Your task to perform on an android device: Show me popular games on the Play Store Image 0: 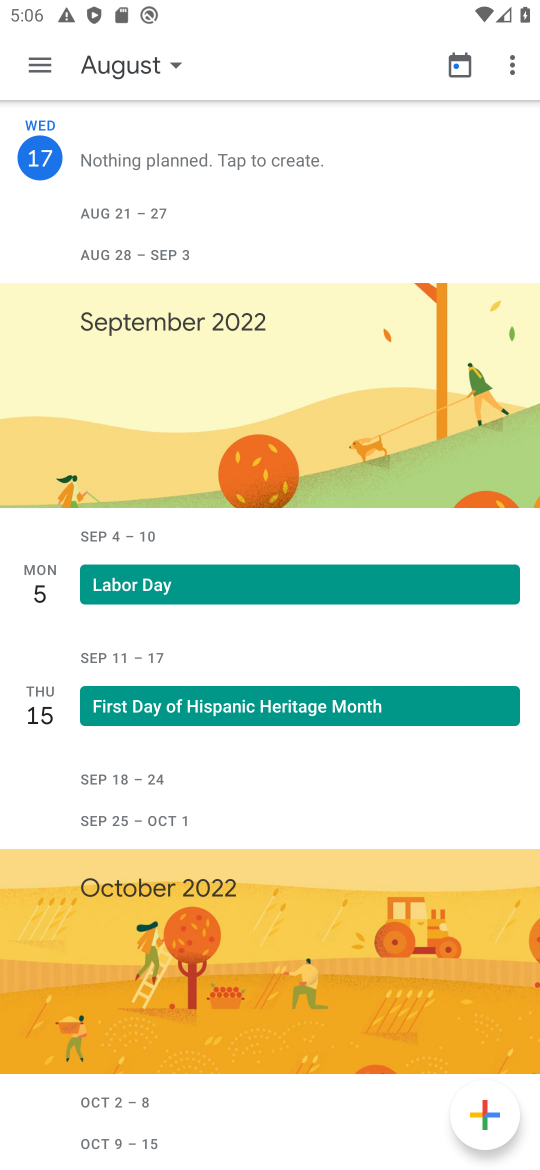
Step 0: press home button
Your task to perform on an android device: Show me popular games on the Play Store Image 1: 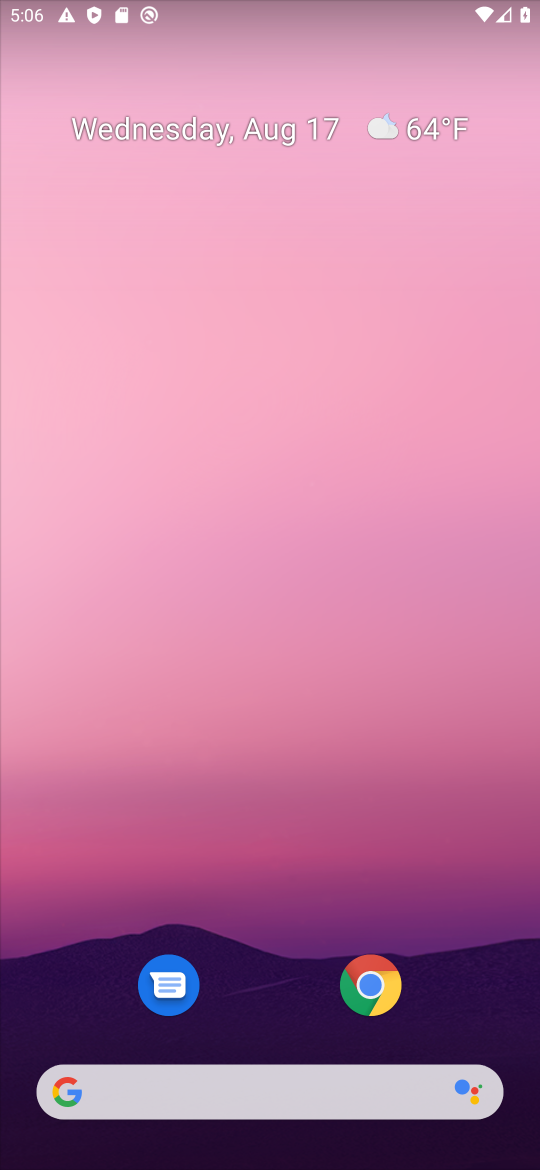
Step 1: drag from (207, 1083) to (371, 154)
Your task to perform on an android device: Show me popular games on the Play Store Image 2: 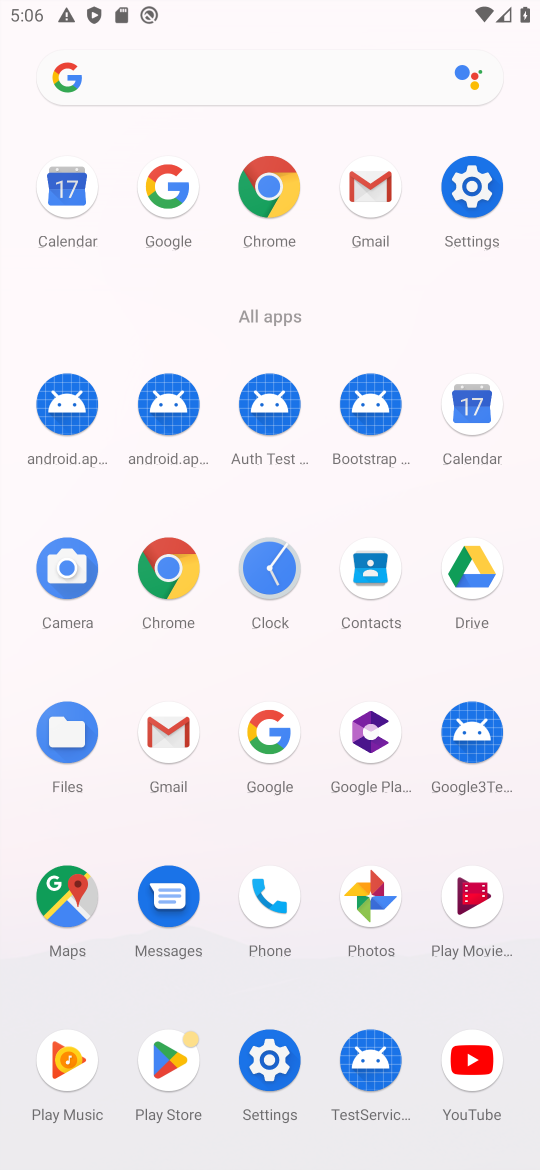
Step 2: click (168, 1062)
Your task to perform on an android device: Show me popular games on the Play Store Image 3: 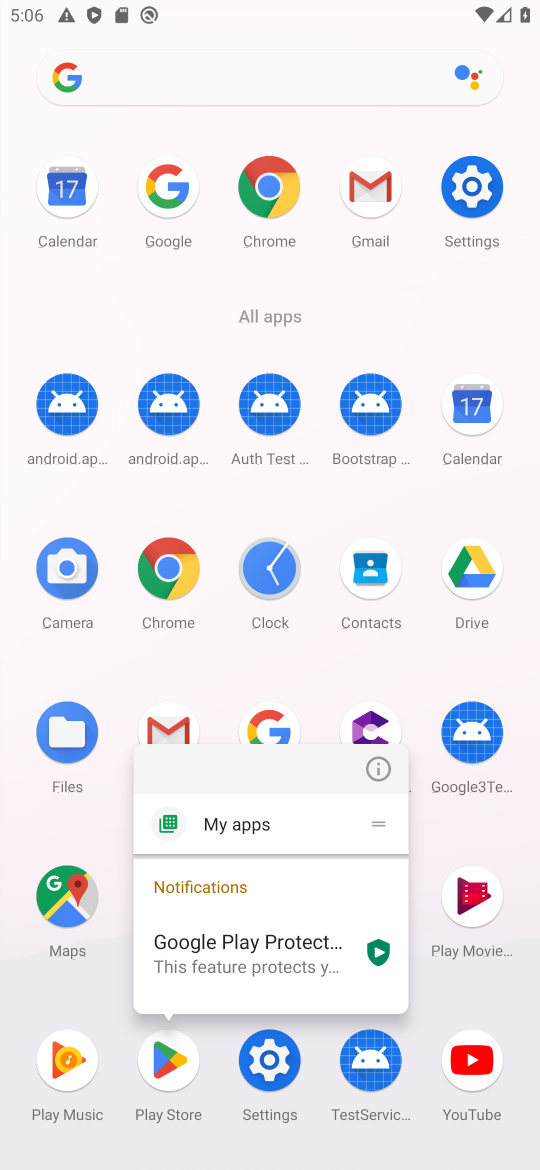
Step 3: click (168, 1062)
Your task to perform on an android device: Show me popular games on the Play Store Image 4: 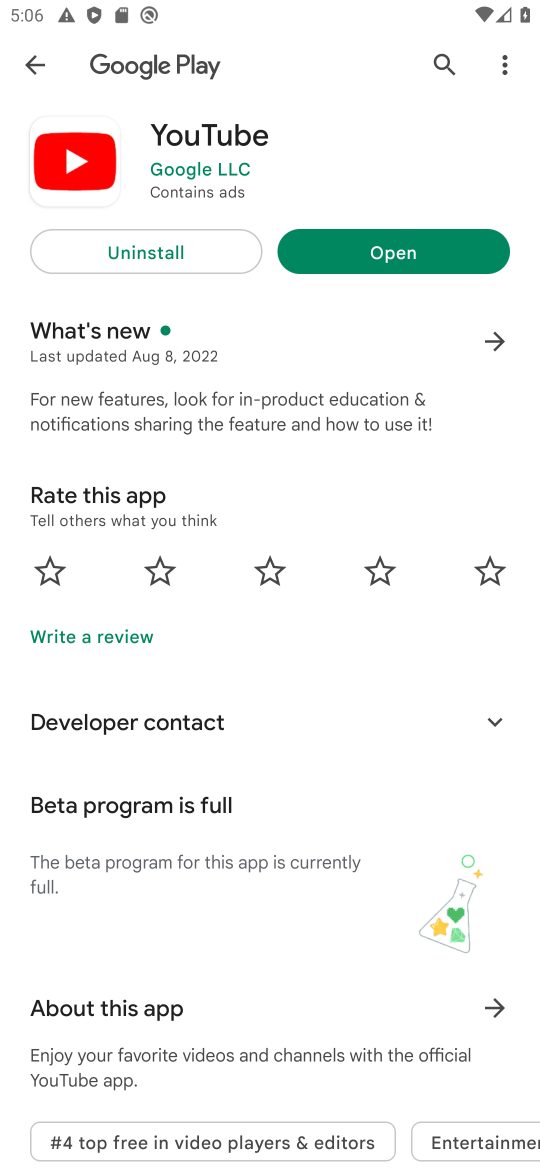
Step 4: press back button
Your task to perform on an android device: Show me popular games on the Play Store Image 5: 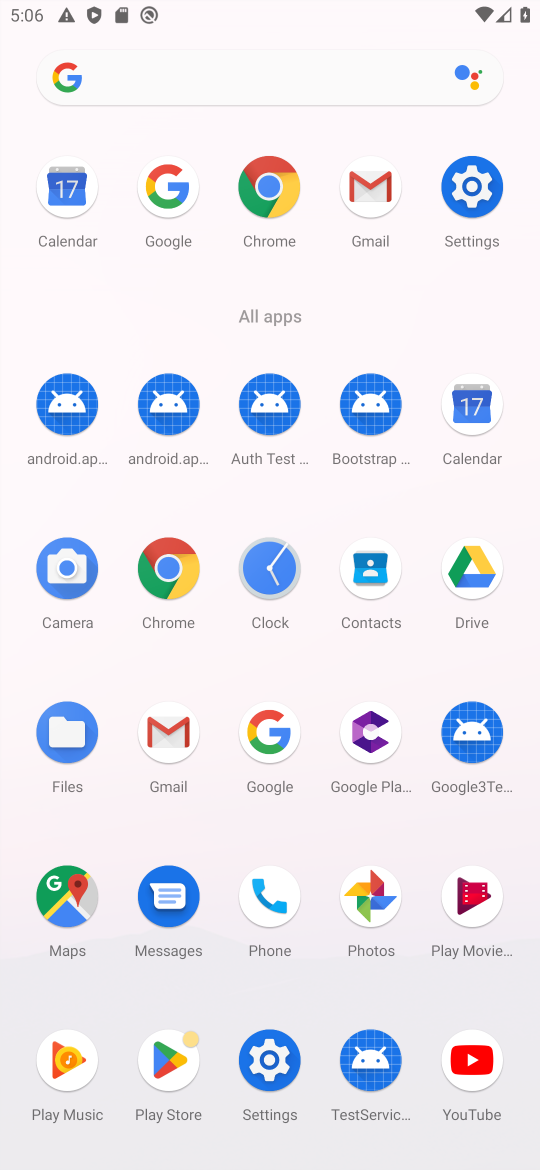
Step 5: click (168, 1060)
Your task to perform on an android device: Show me popular games on the Play Store Image 6: 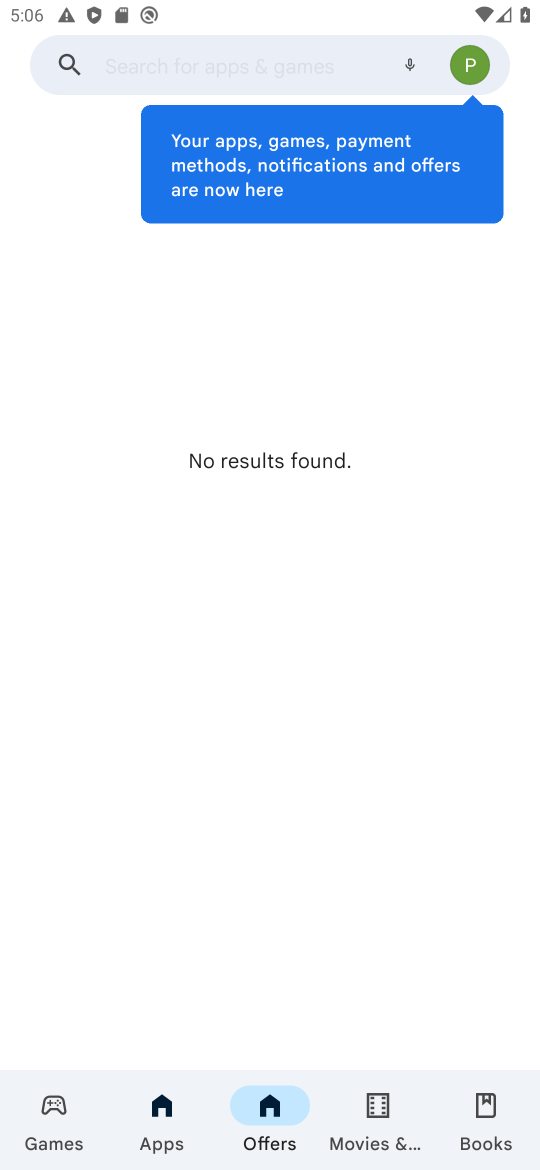
Step 6: click (307, 64)
Your task to perform on an android device: Show me popular games on the Play Store Image 7: 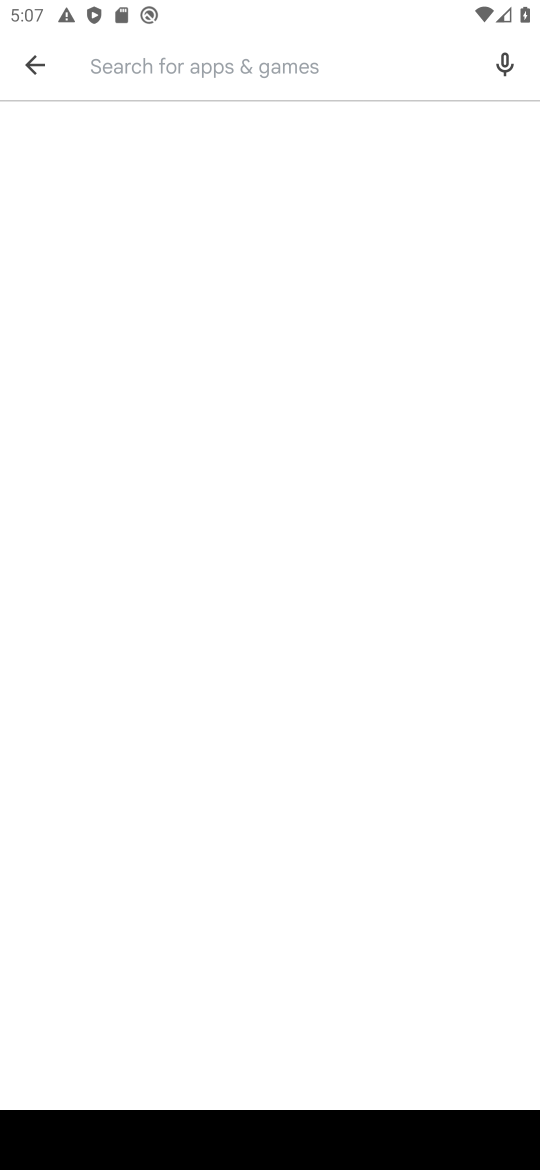
Step 7: type "popular games"
Your task to perform on an android device: Show me popular games on the Play Store Image 8: 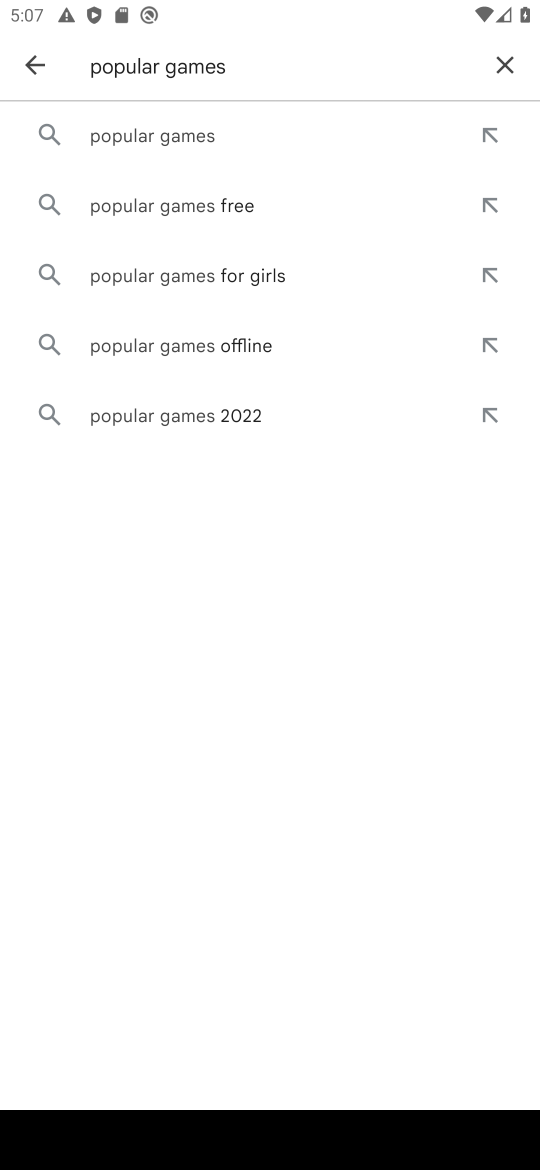
Step 8: click (190, 133)
Your task to perform on an android device: Show me popular games on the Play Store Image 9: 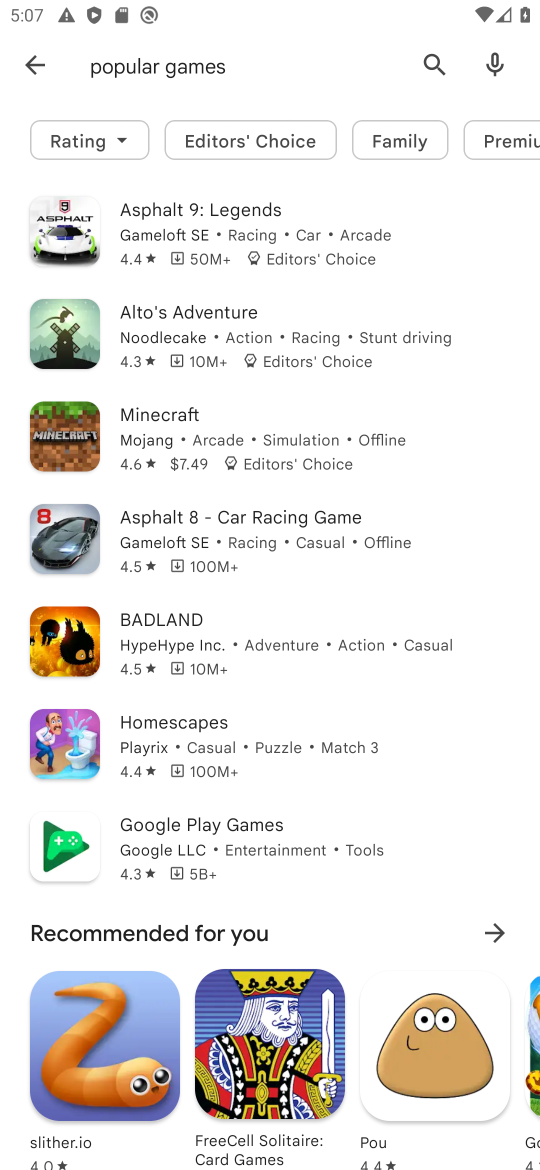
Step 9: task complete